Your task to perform on an android device: Add rayovac triple a to the cart on costco.com, then select checkout. Image 0: 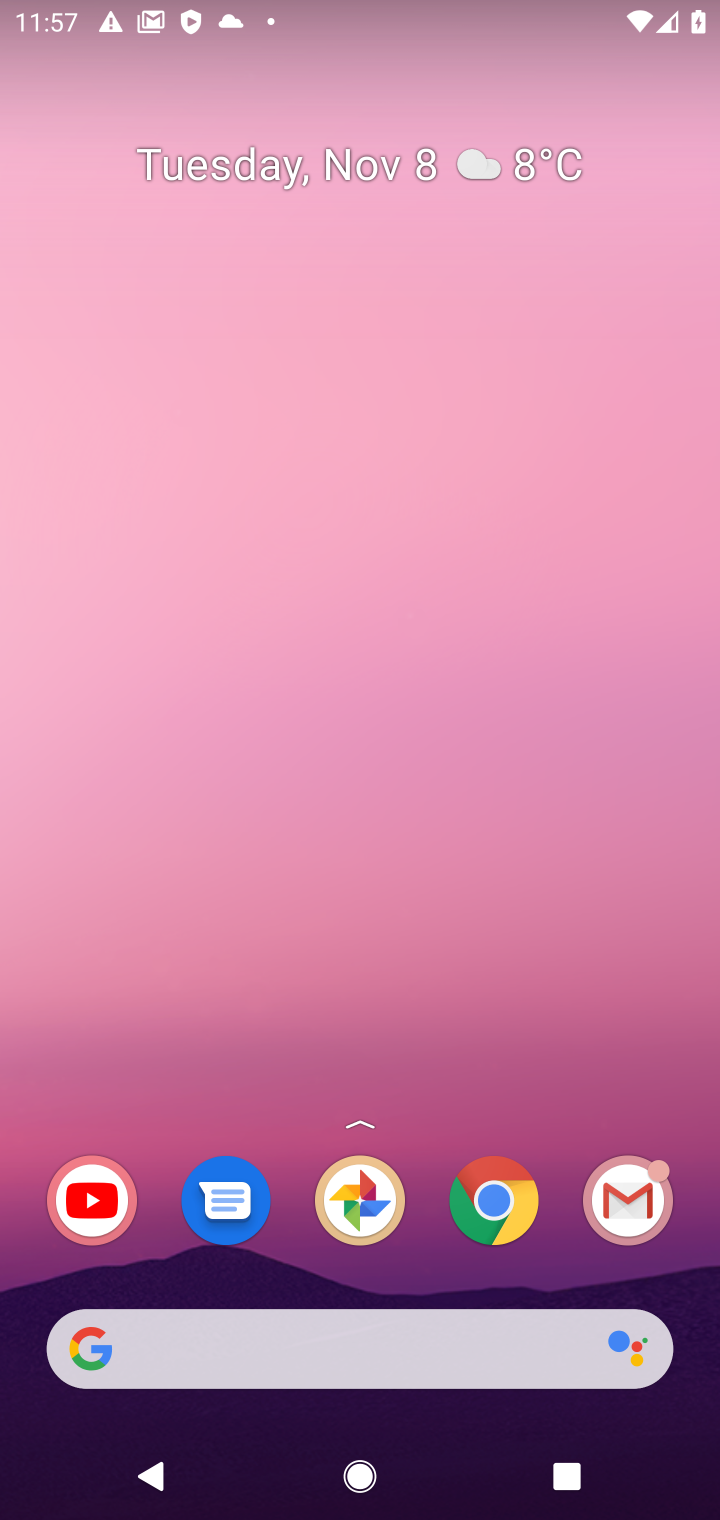
Step 0: click (322, 1321)
Your task to perform on an android device: Add rayovac triple a to the cart on costco.com, then select checkout. Image 1: 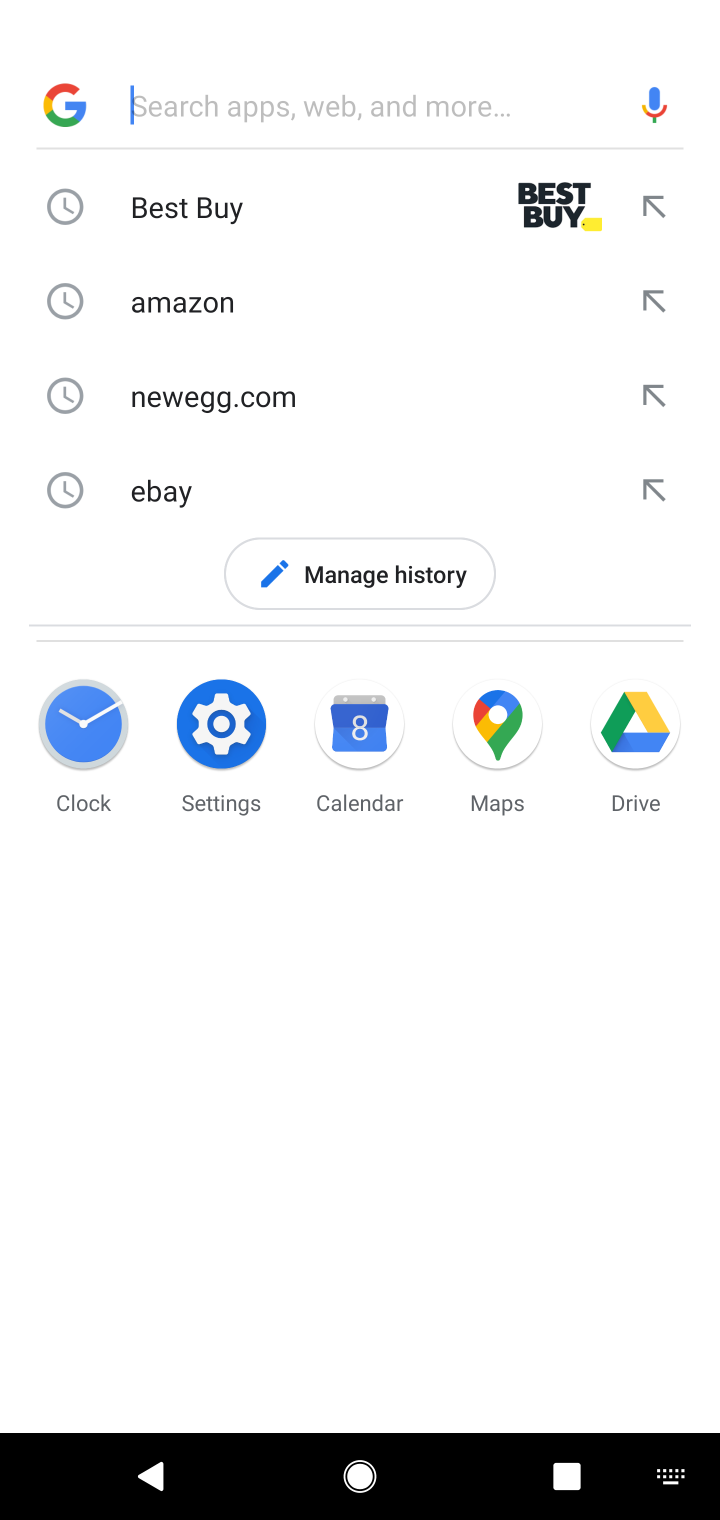
Step 1: type "costco"
Your task to perform on an android device: Add rayovac triple a to the cart on costco.com, then select checkout. Image 2: 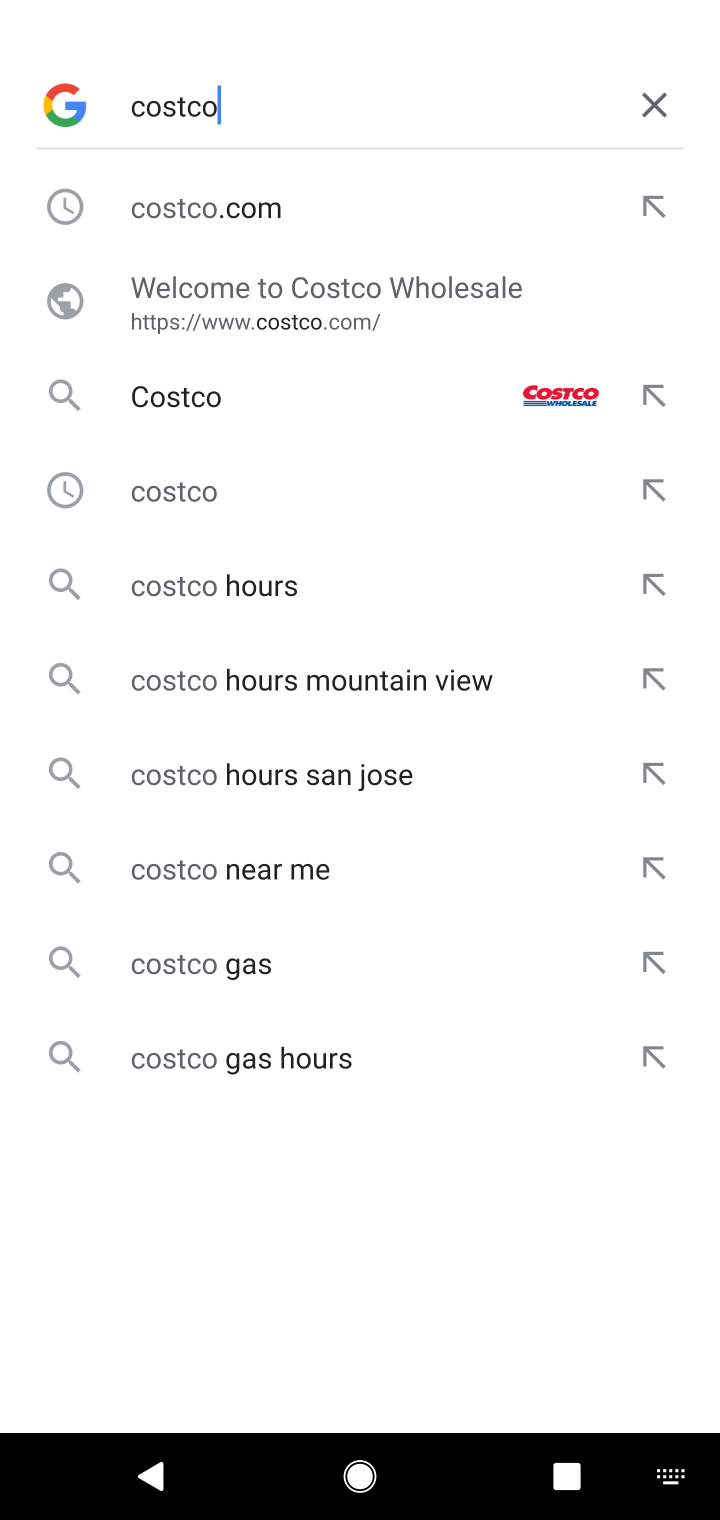
Step 2: click (399, 205)
Your task to perform on an android device: Add rayovac triple a to the cart on costco.com, then select checkout. Image 3: 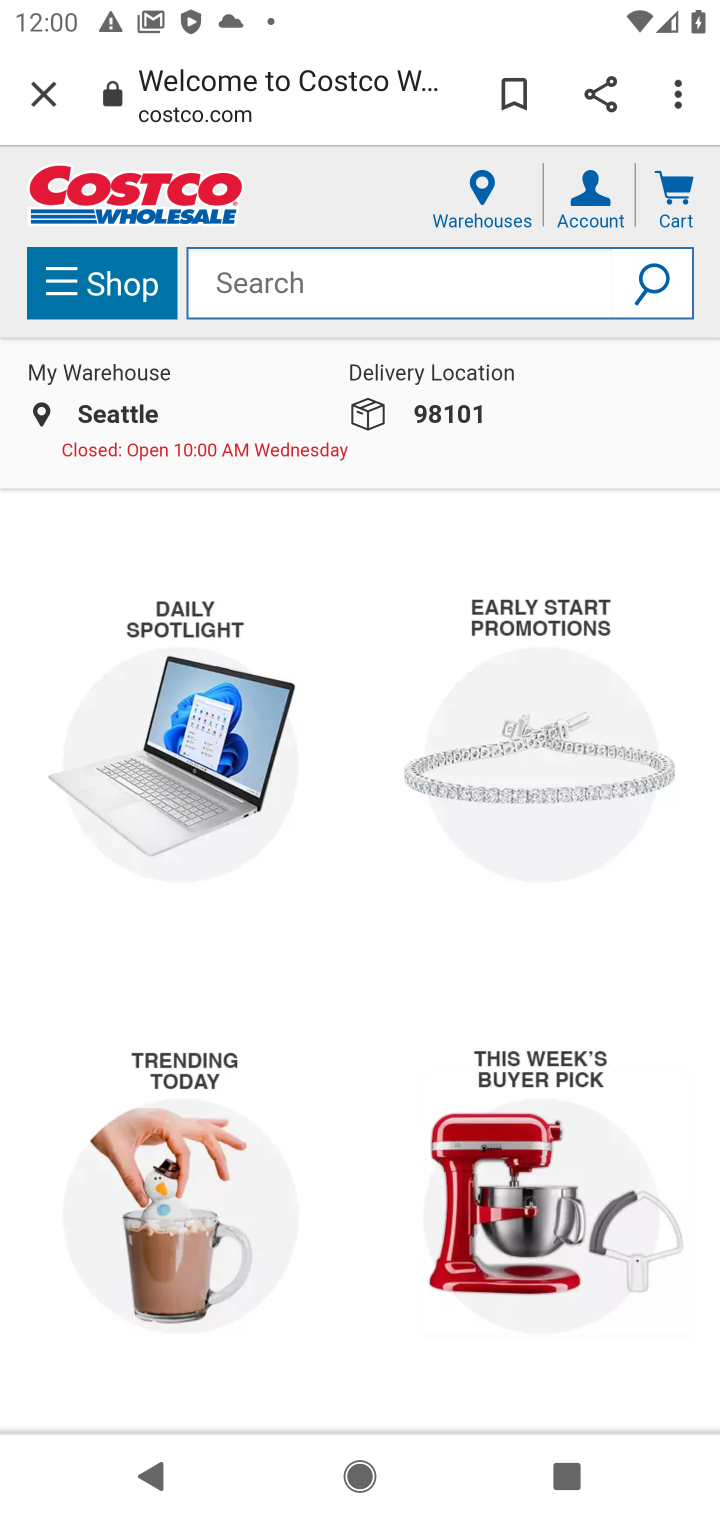
Step 3: task complete